Your task to perform on an android device: Open the phone app and click the voicemail tab. Image 0: 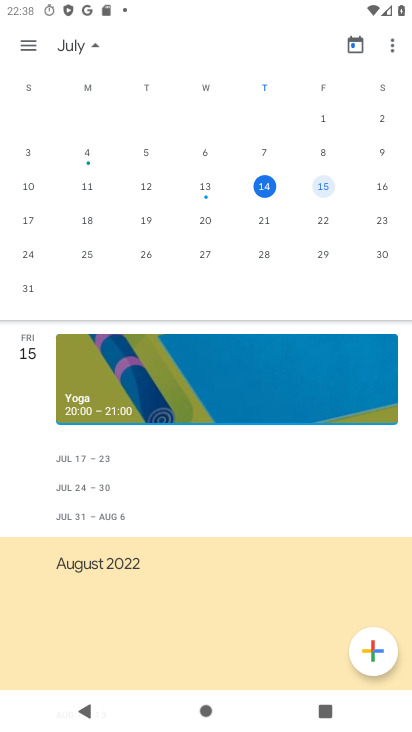
Step 0: press home button
Your task to perform on an android device: Open the phone app and click the voicemail tab. Image 1: 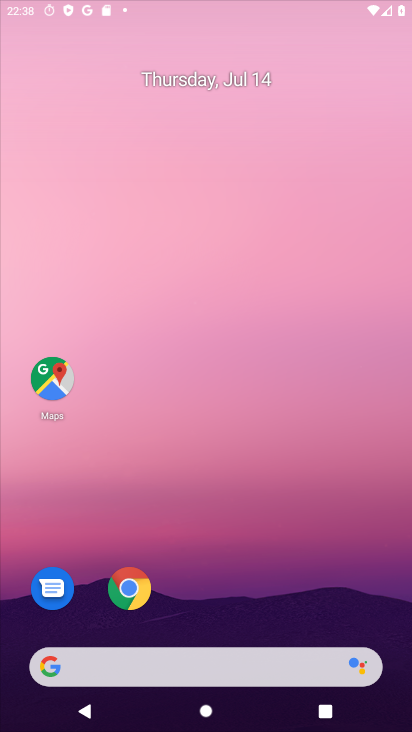
Step 1: drag from (241, 621) to (233, 139)
Your task to perform on an android device: Open the phone app and click the voicemail tab. Image 2: 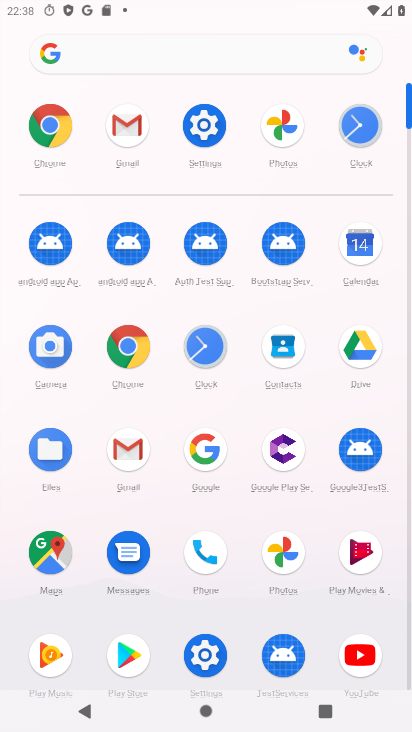
Step 2: click (204, 553)
Your task to perform on an android device: Open the phone app and click the voicemail tab. Image 3: 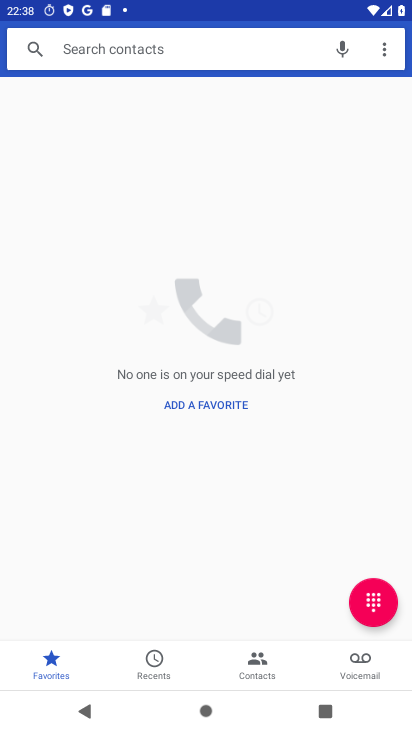
Step 3: click (369, 675)
Your task to perform on an android device: Open the phone app and click the voicemail tab. Image 4: 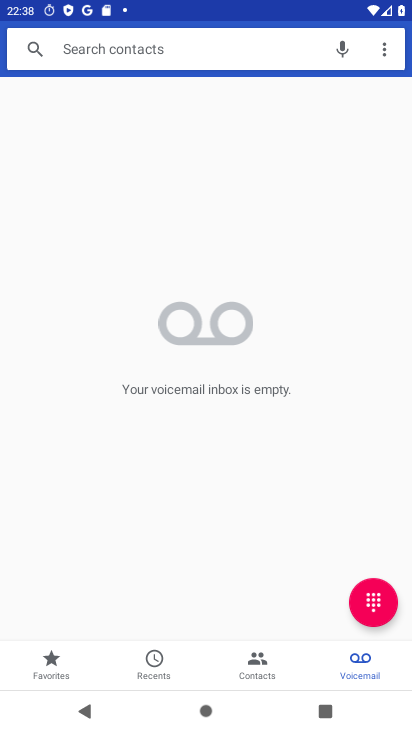
Step 4: task complete